Your task to perform on an android device: Open Google Image 0: 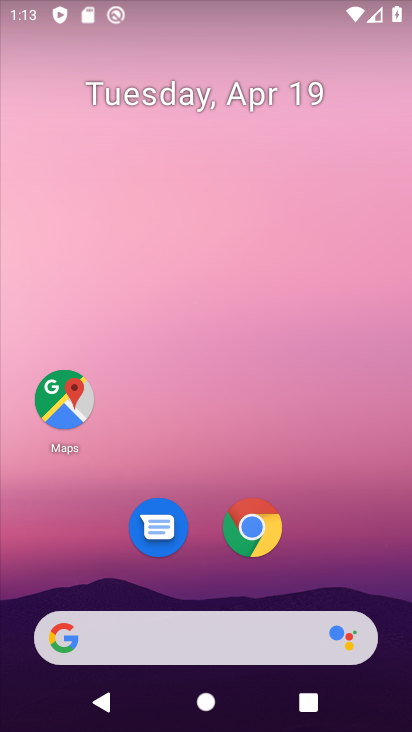
Step 0: drag from (215, 505) to (273, 127)
Your task to perform on an android device: Open Google Image 1: 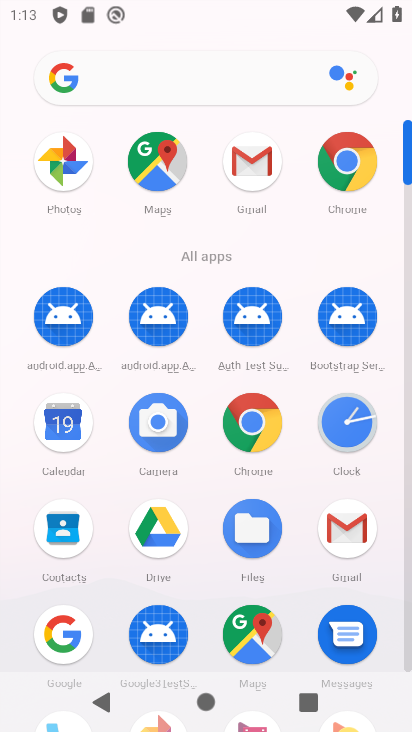
Step 1: click (57, 620)
Your task to perform on an android device: Open Google Image 2: 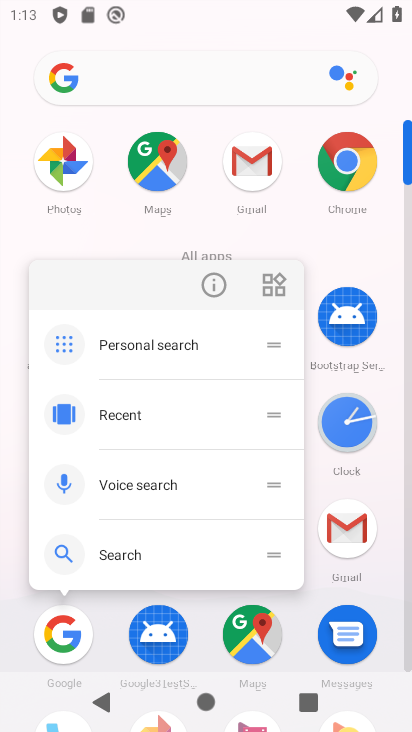
Step 2: click (70, 623)
Your task to perform on an android device: Open Google Image 3: 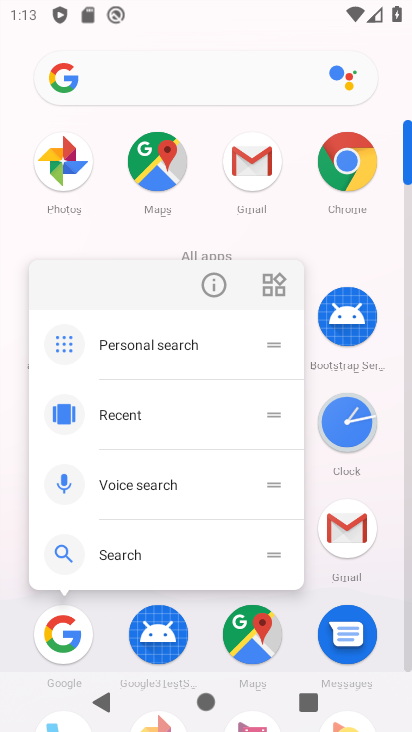
Step 3: click (67, 631)
Your task to perform on an android device: Open Google Image 4: 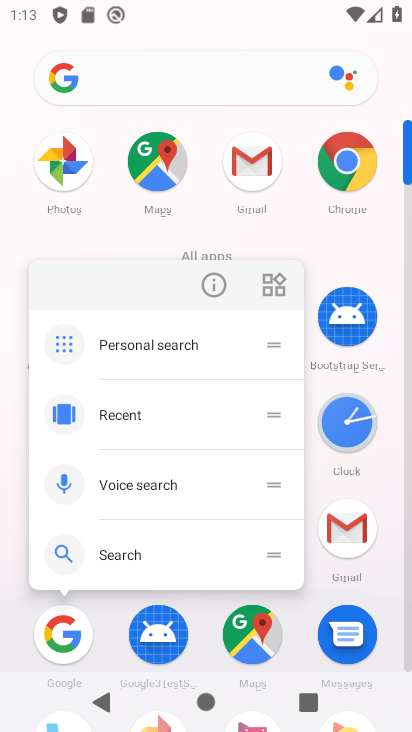
Step 4: click (61, 643)
Your task to perform on an android device: Open Google Image 5: 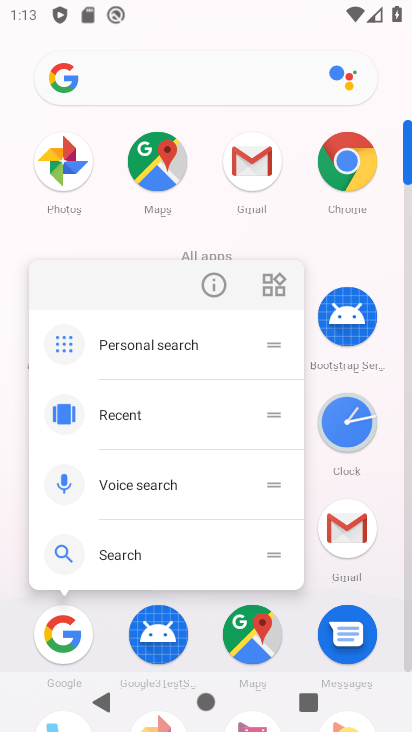
Step 5: click (65, 635)
Your task to perform on an android device: Open Google Image 6: 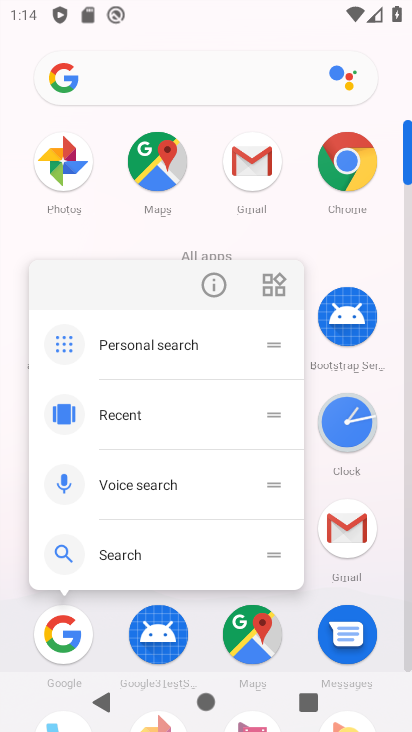
Step 6: click (53, 627)
Your task to perform on an android device: Open Google Image 7: 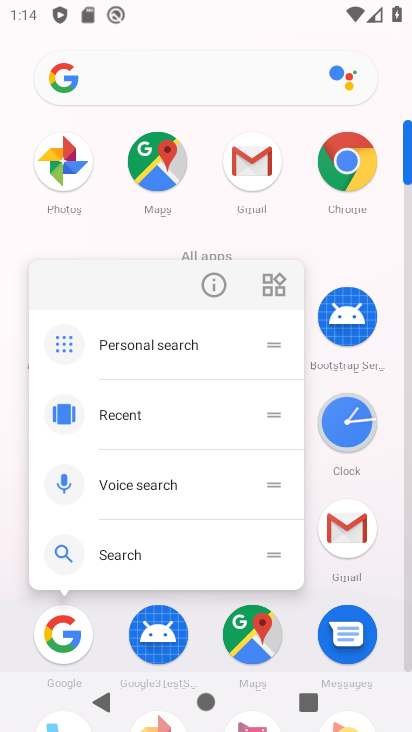
Step 7: click (55, 634)
Your task to perform on an android device: Open Google Image 8: 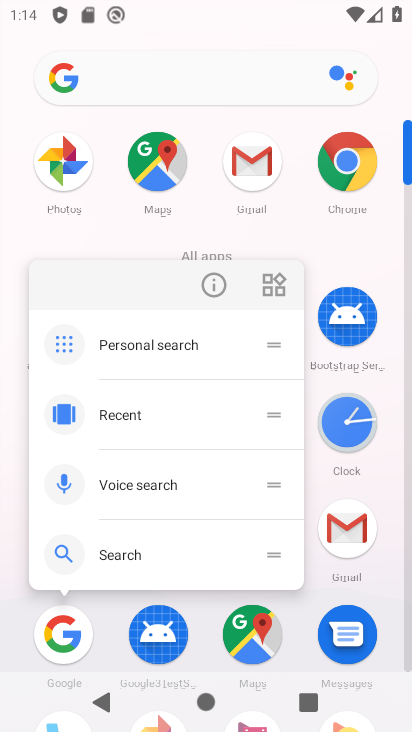
Step 8: click (60, 636)
Your task to perform on an android device: Open Google Image 9: 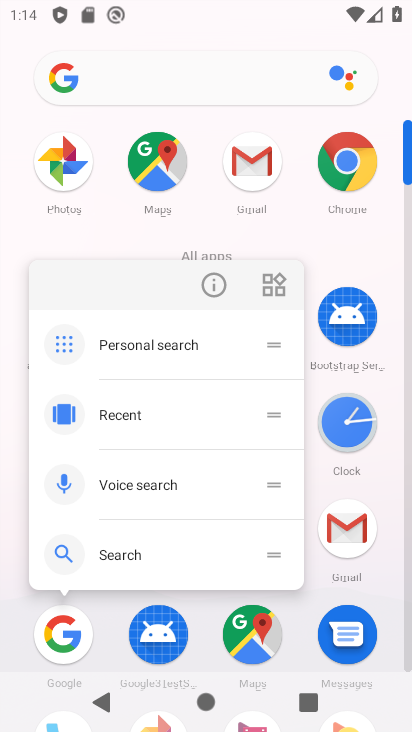
Step 9: click (78, 632)
Your task to perform on an android device: Open Google Image 10: 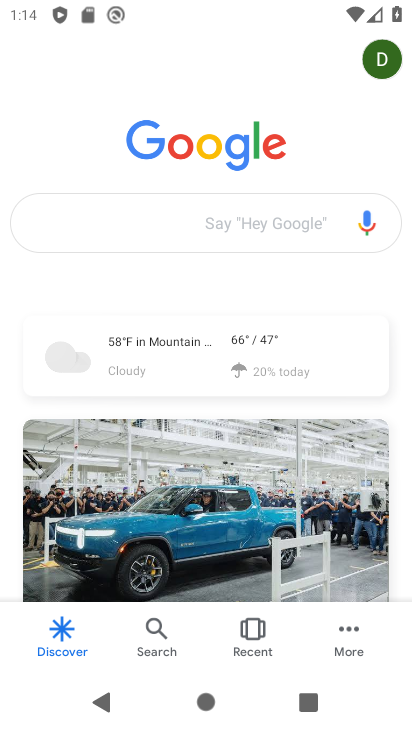
Step 10: task complete